Your task to perform on an android device: uninstall "Life360: Find Family & Friends" Image 0: 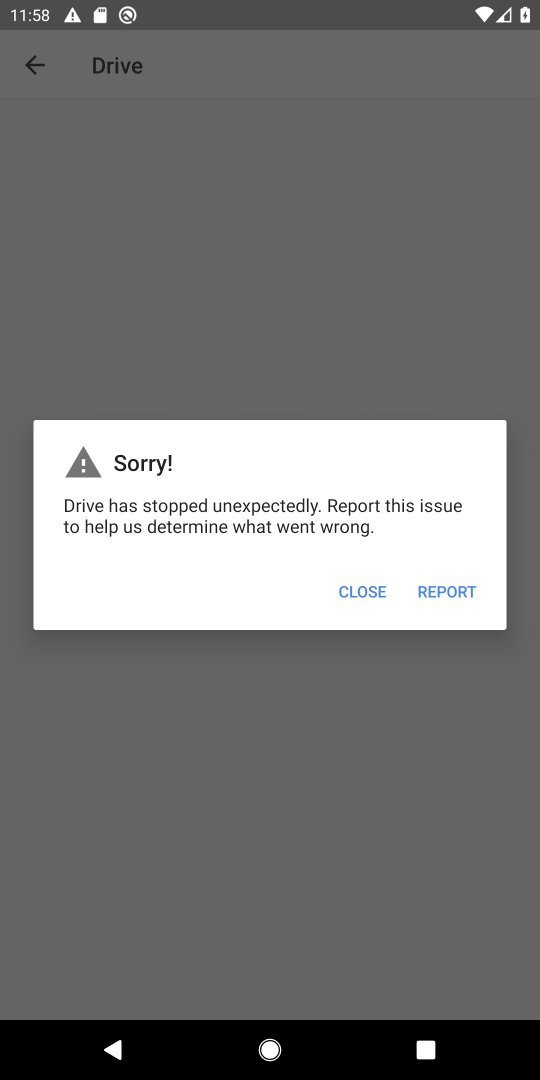
Step 0: press home button
Your task to perform on an android device: uninstall "Life360: Find Family & Friends" Image 1: 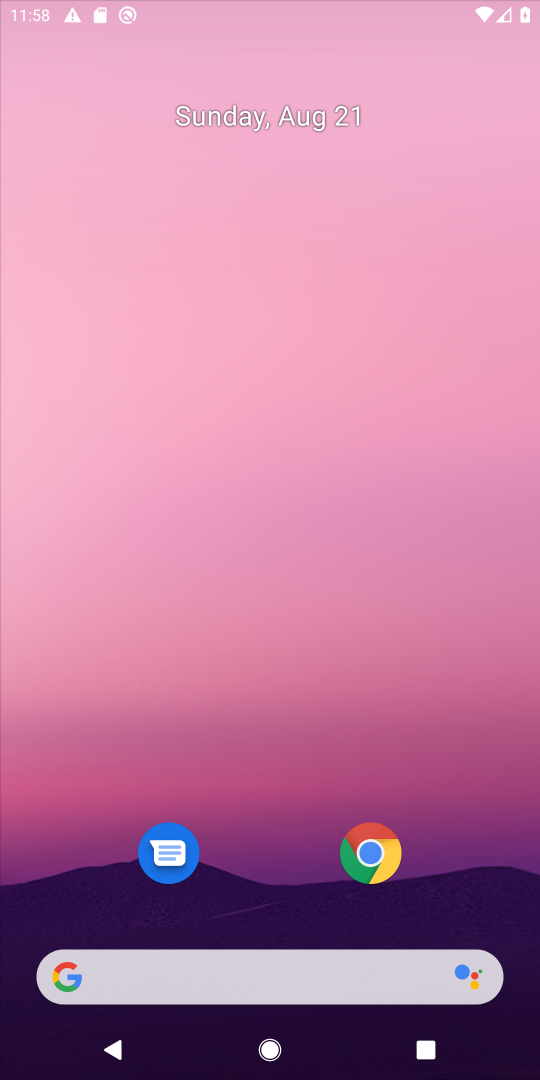
Step 1: drag from (254, 916) to (346, 320)
Your task to perform on an android device: uninstall "Life360: Find Family & Friends" Image 2: 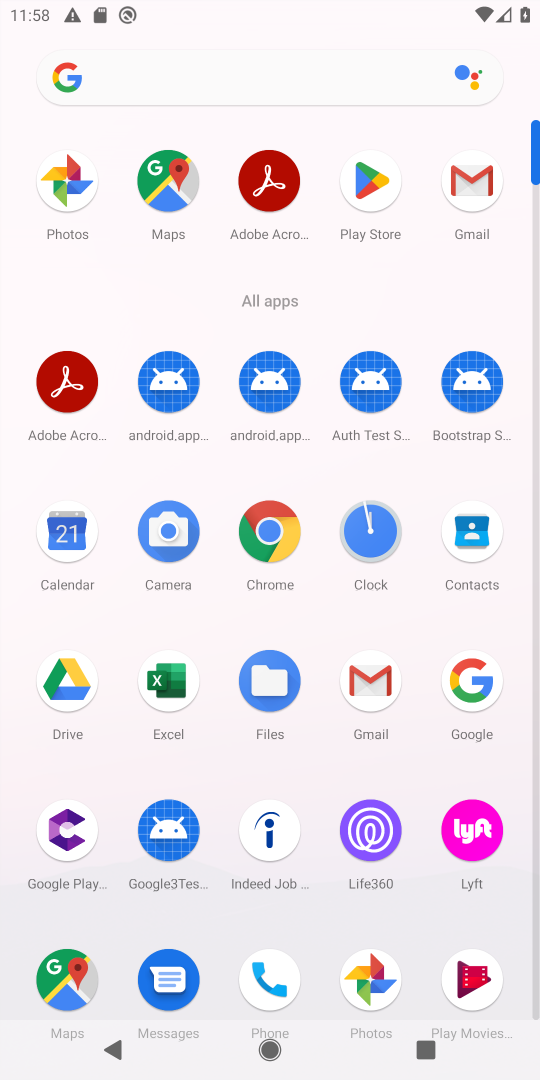
Step 2: click (356, 171)
Your task to perform on an android device: uninstall "Life360: Find Family & Friends" Image 3: 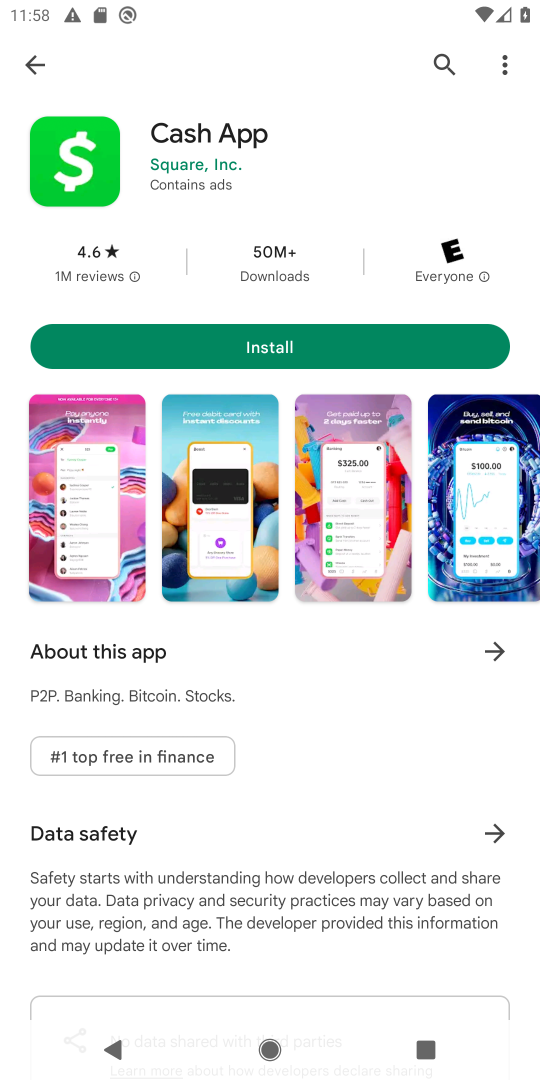
Step 3: click (43, 75)
Your task to perform on an android device: uninstall "Life360: Find Family & Friends" Image 4: 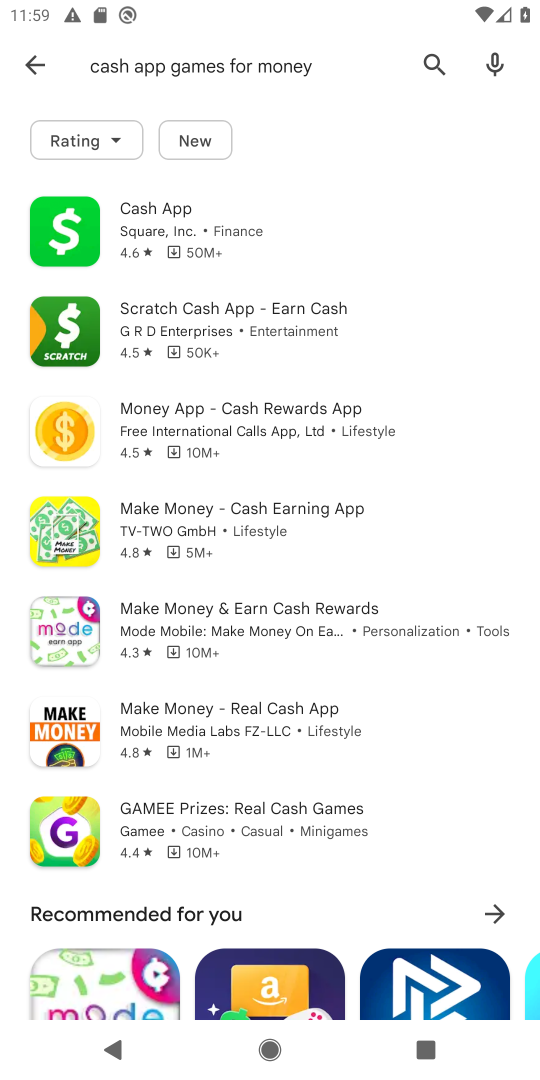
Step 4: click (35, 89)
Your task to perform on an android device: uninstall "Life360: Find Family & Friends" Image 5: 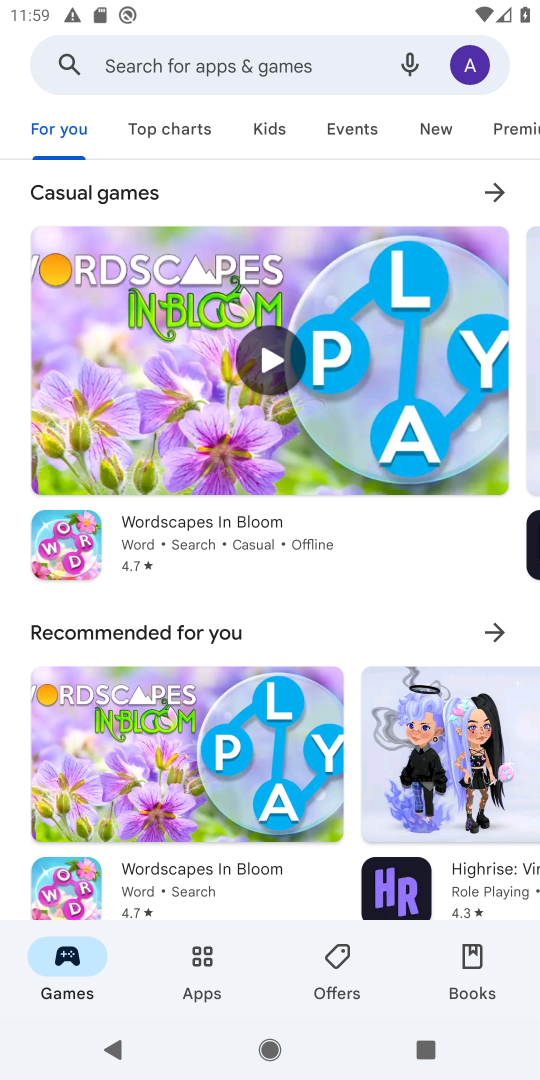
Step 5: click (267, 161)
Your task to perform on an android device: uninstall "Life360: Find Family & Friends" Image 6: 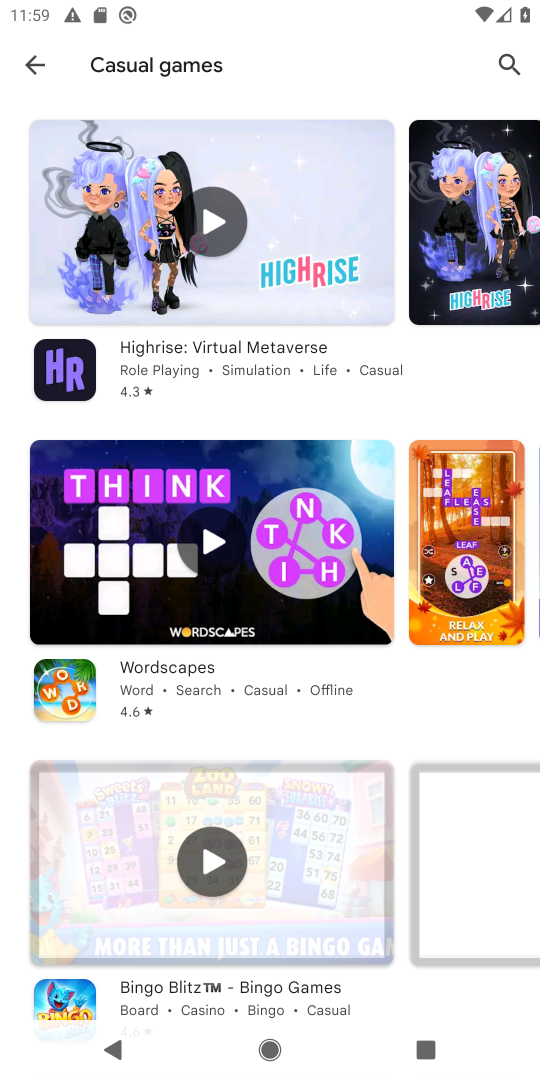
Step 6: click (28, 64)
Your task to perform on an android device: uninstall "Life360: Find Family & Friends" Image 7: 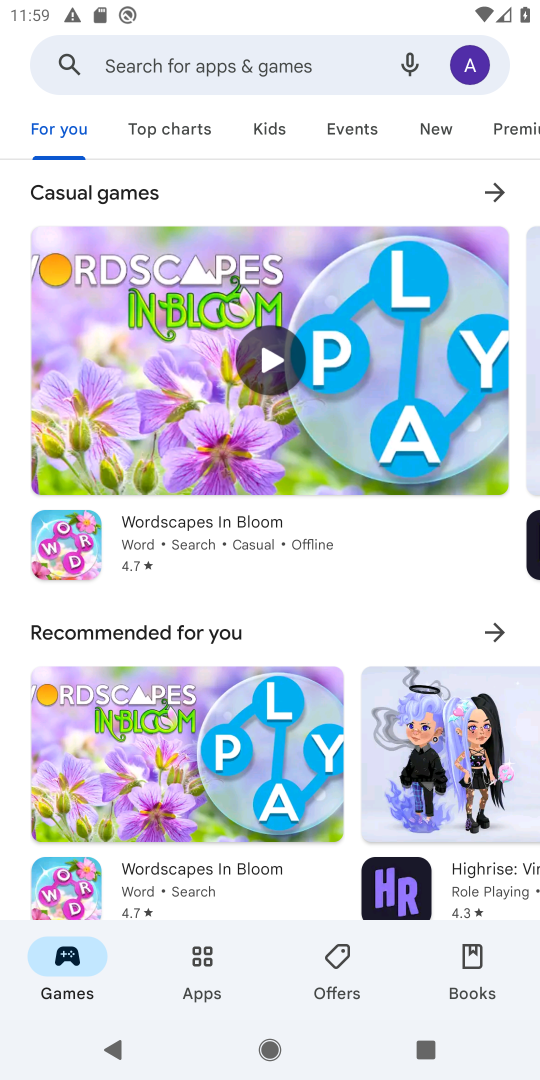
Step 7: click (208, 51)
Your task to perform on an android device: uninstall "Life360: Find Family & Friends" Image 8: 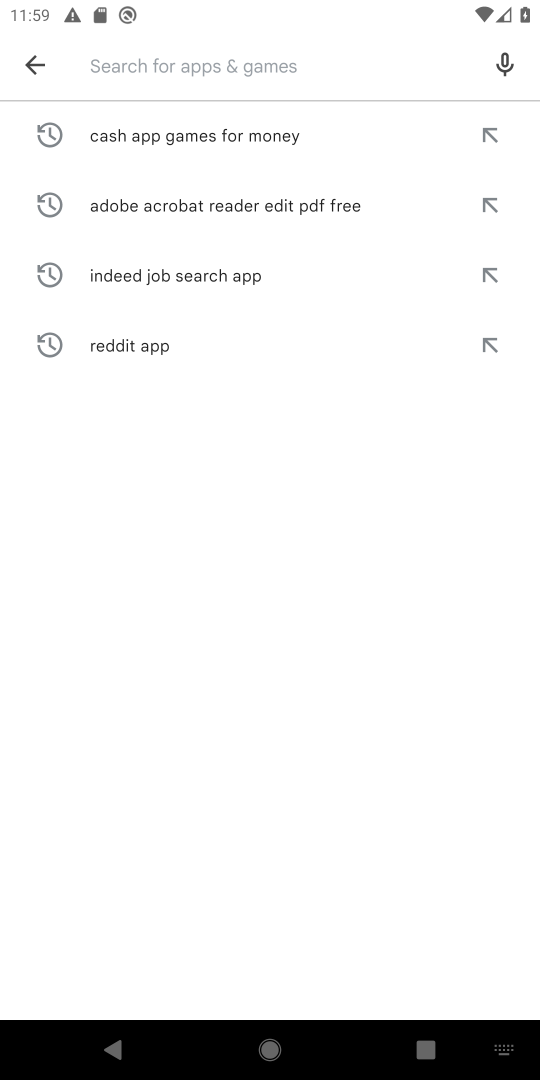
Step 8: click (208, 51)
Your task to perform on an android device: uninstall "Life360: Find Family & Friends" Image 9: 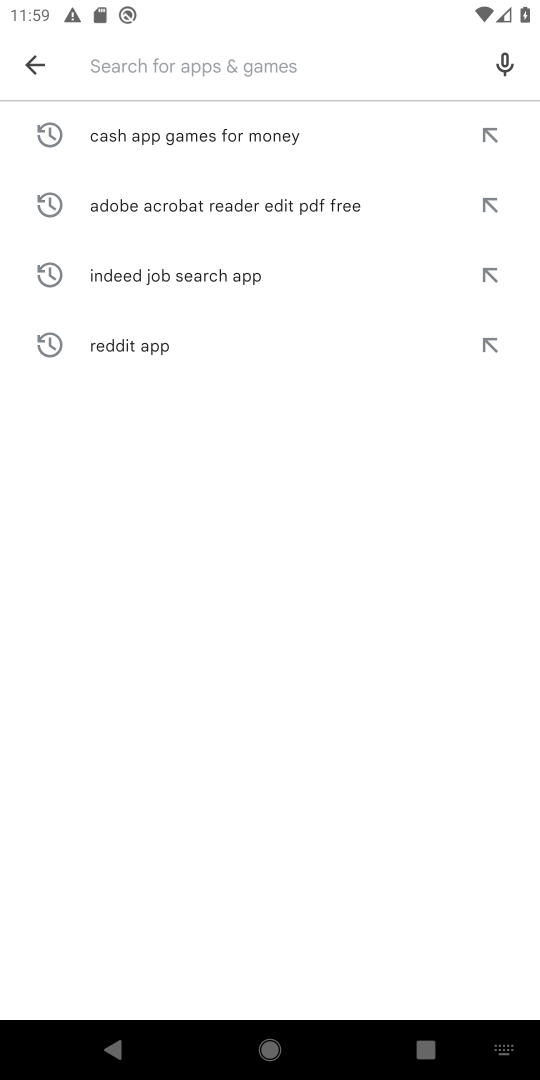
Step 9: type "Life360: Find Family & Friends "
Your task to perform on an android device: uninstall "Life360: Find Family & Friends" Image 10: 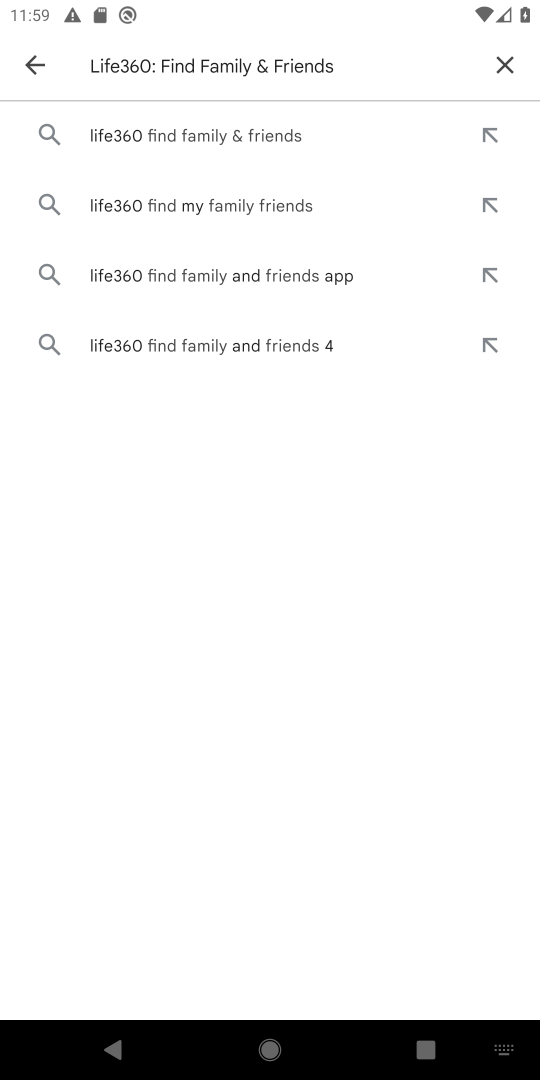
Step 10: click (243, 131)
Your task to perform on an android device: uninstall "Life360: Find Family & Friends" Image 11: 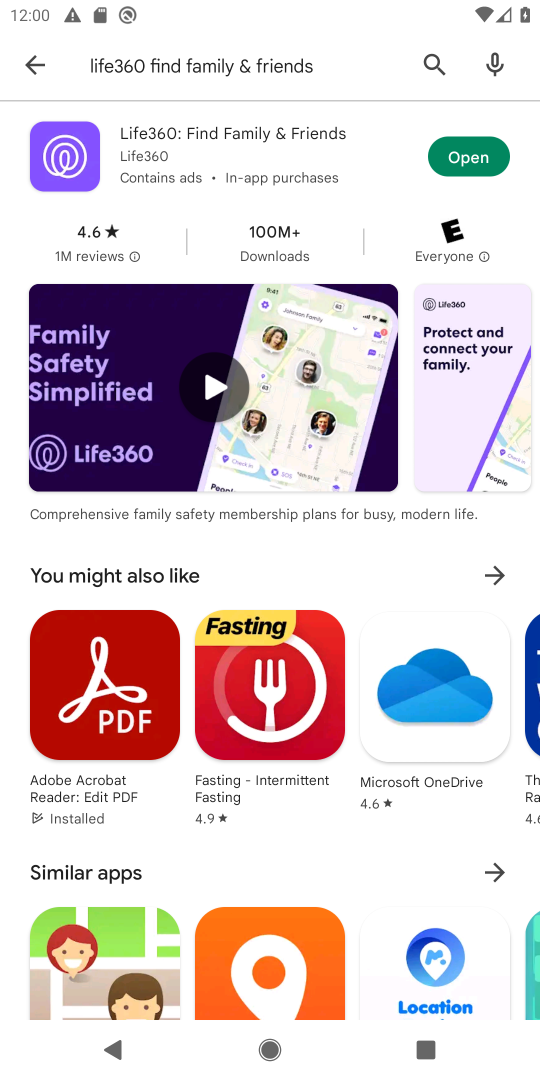
Step 11: click (486, 147)
Your task to perform on an android device: uninstall "Life360: Find Family & Friends" Image 12: 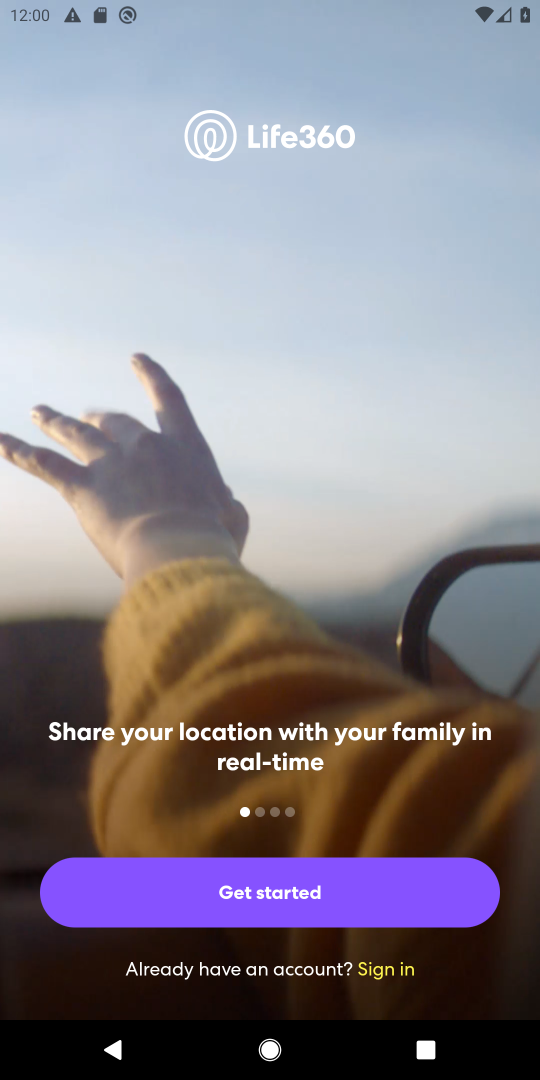
Step 12: task complete